Your task to perform on an android device: Show the shopping cart on newegg. Search for amazon basics triple a on newegg, select the first entry, add it to the cart, then select checkout. Image 0: 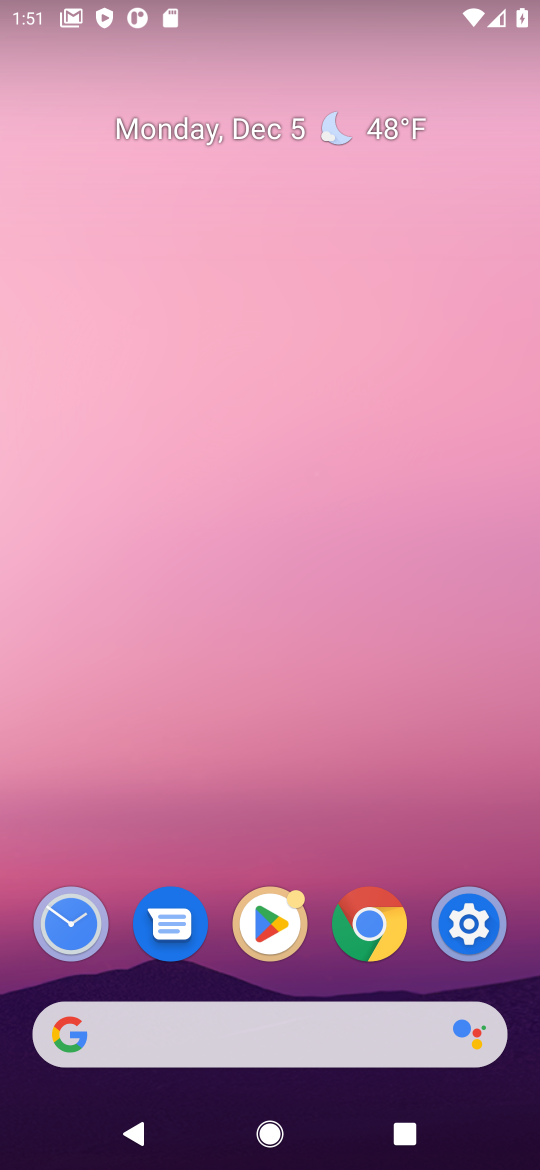
Step 0: click (360, 939)
Your task to perform on an android device: Show the shopping cart on newegg. Search for amazon basics triple a on newegg, select the first entry, add it to the cart, then select checkout. Image 1: 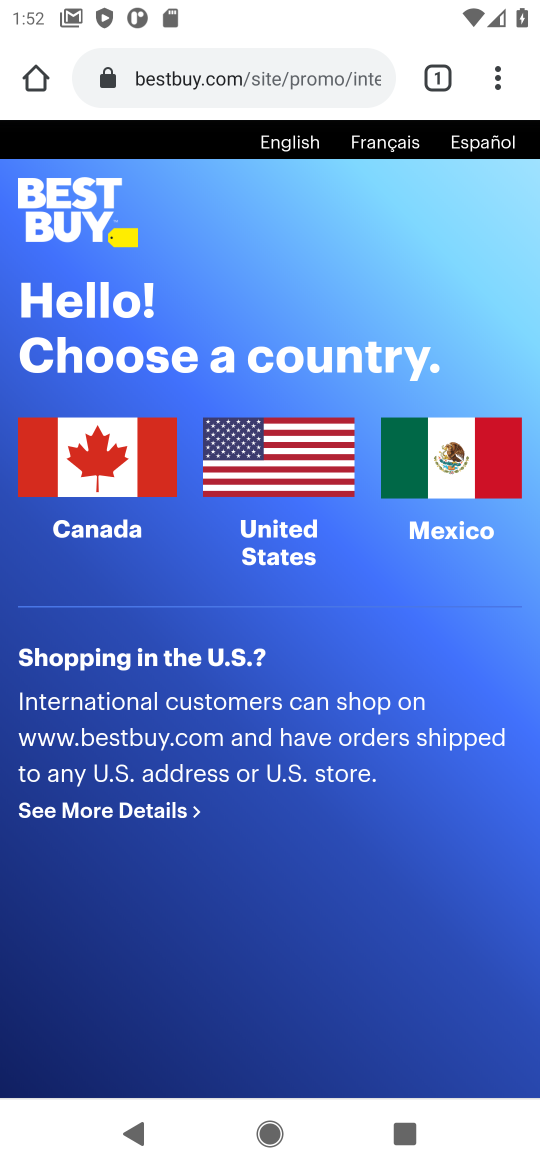
Step 1: click (96, 501)
Your task to perform on an android device: Show the shopping cart on newegg. Search for amazon basics triple a on newegg, select the first entry, add it to the cart, then select checkout. Image 2: 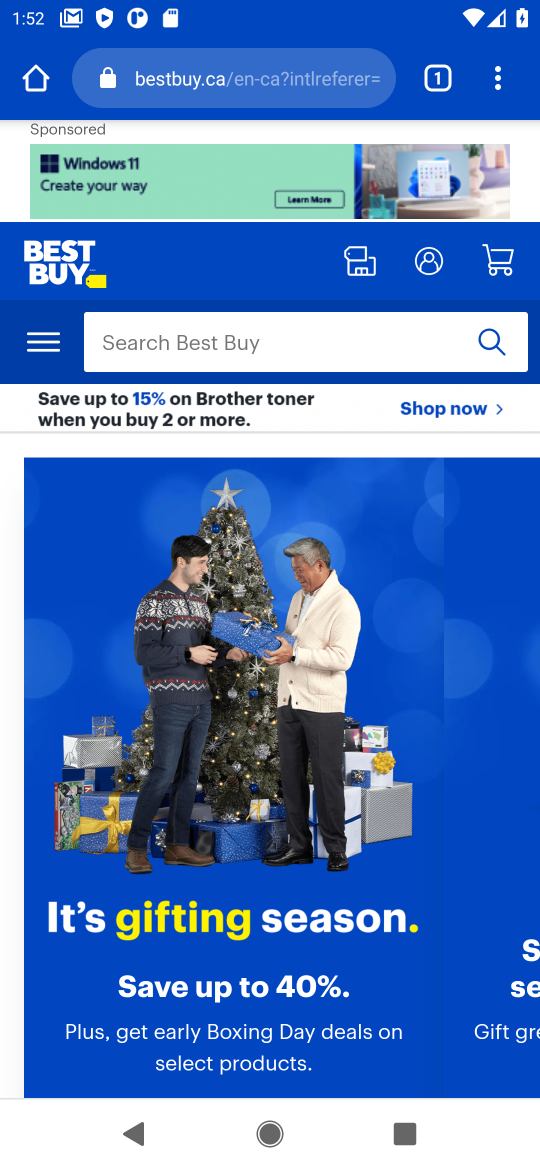
Step 2: click (173, 334)
Your task to perform on an android device: Show the shopping cart on newegg. Search for amazon basics triple a on newegg, select the first entry, add it to the cart, then select checkout. Image 3: 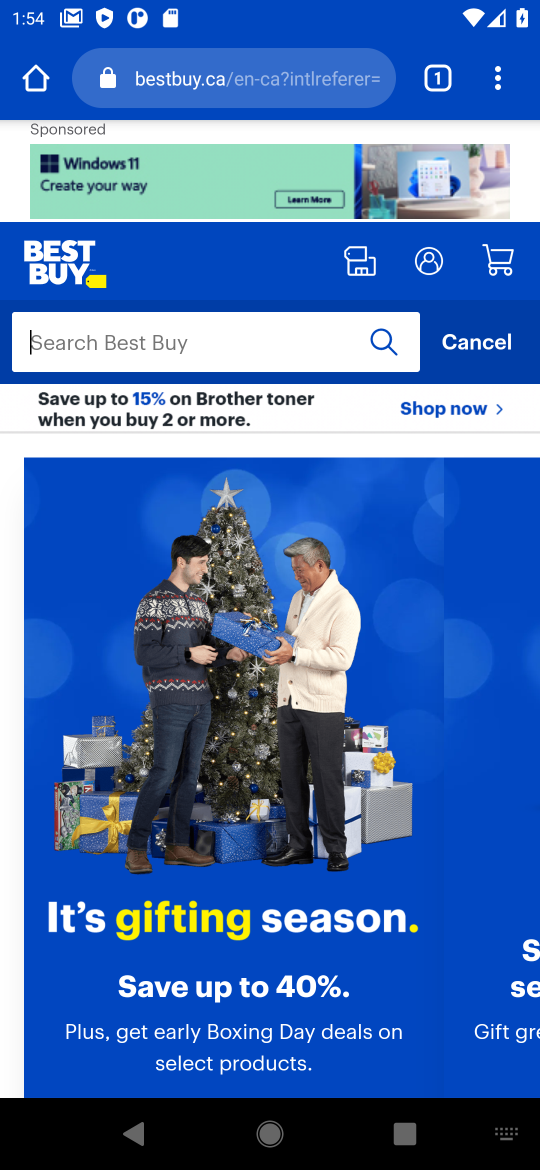
Step 3: task complete